Your task to perform on an android device: move a message to another label in the gmail app Image 0: 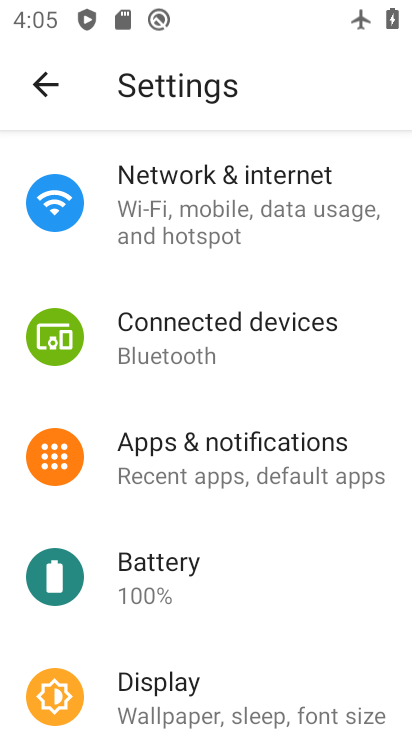
Step 0: press home button
Your task to perform on an android device: move a message to another label in the gmail app Image 1: 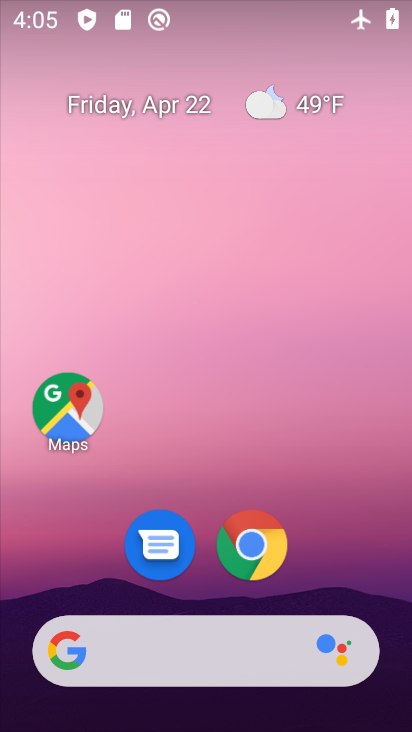
Step 1: drag from (351, 446) to (330, 154)
Your task to perform on an android device: move a message to another label in the gmail app Image 2: 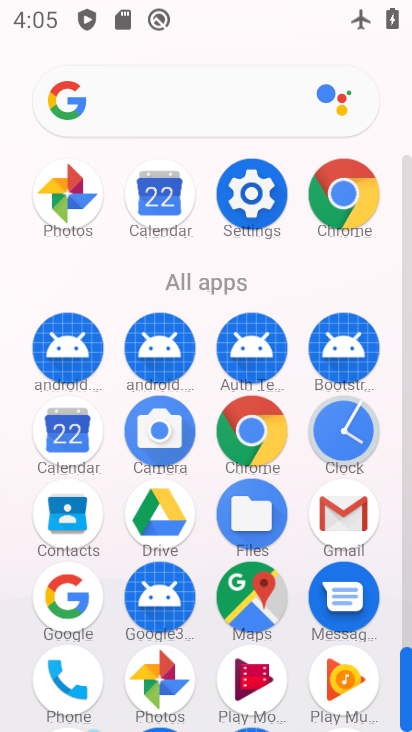
Step 2: click (338, 520)
Your task to perform on an android device: move a message to another label in the gmail app Image 3: 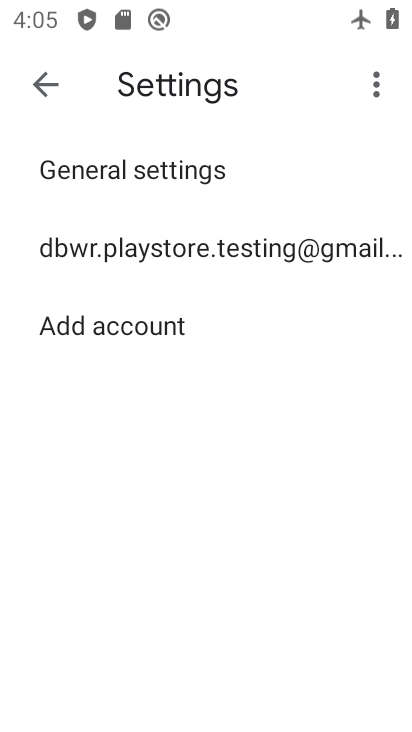
Step 3: click (136, 237)
Your task to perform on an android device: move a message to another label in the gmail app Image 4: 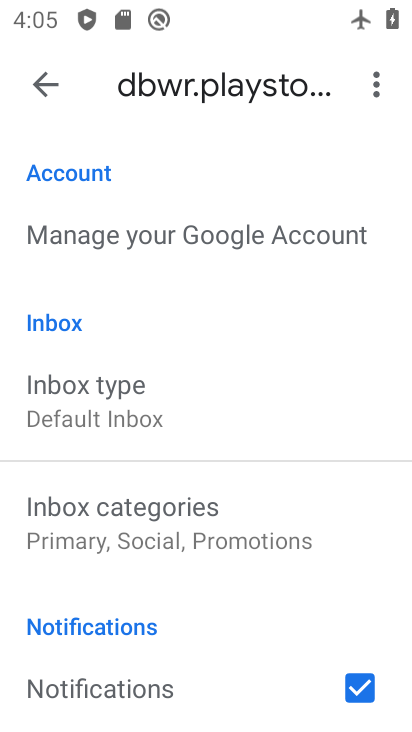
Step 4: click (34, 78)
Your task to perform on an android device: move a message to another label in the gmail app Image 5: 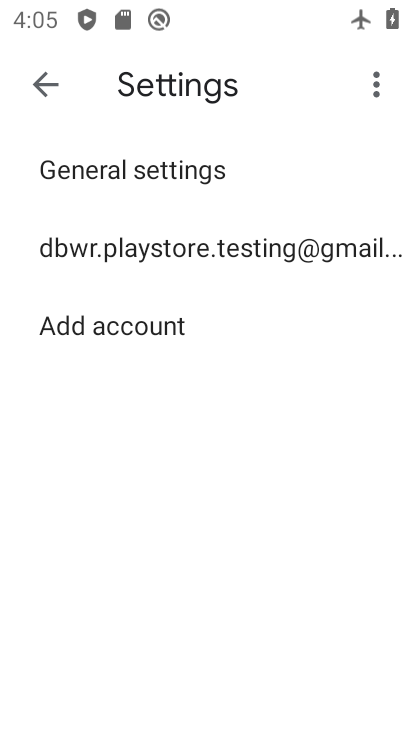
Step 5: click (34, 78)
Your task to perform on an android device: move a message to another label in the gmail app Image 6: 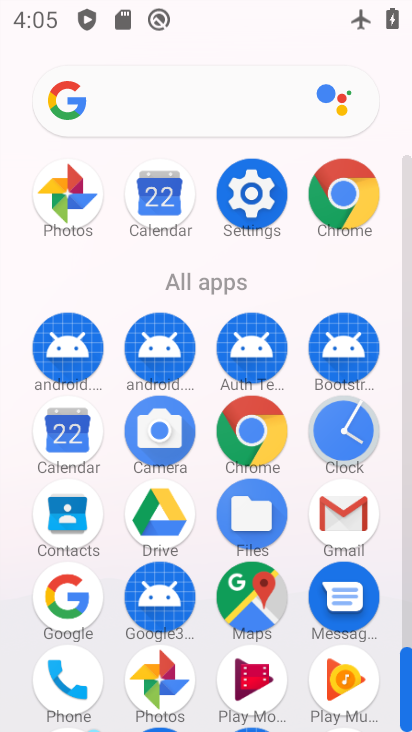
Step 6: click (364, 517)
Your task to perform on an android device: move a message to another label in the gmail app Image 7: 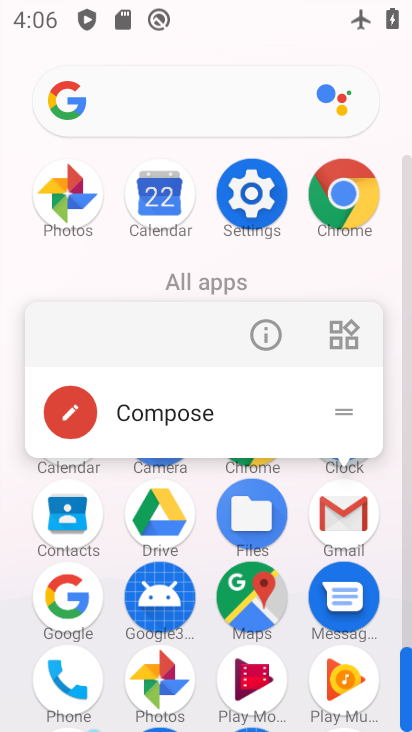
Step 7: click (364, 517)
Your task to perform on an android device: move a message to another label in the gmail app Image 8: 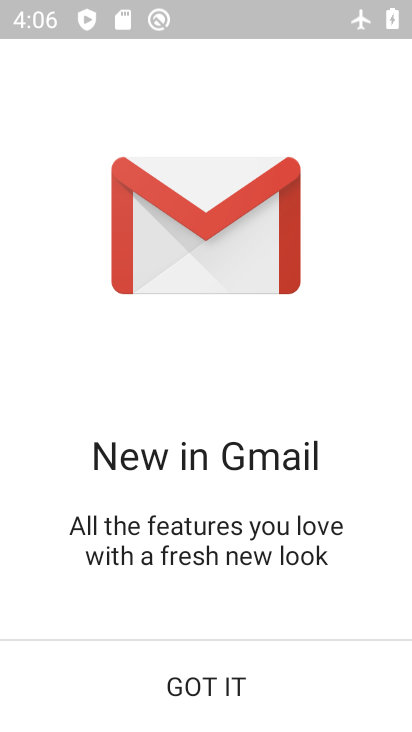
Step 8: click (204, 670)
Your task to perform on an android device: move a message to another label in the gmail app Image 9: 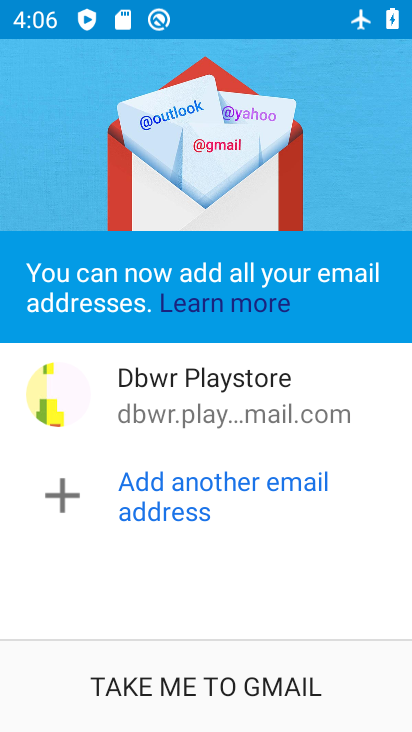
Step 9: click (200, 675)
Your task to perform on an android device: move a message to another label in the gmail app Image 10: 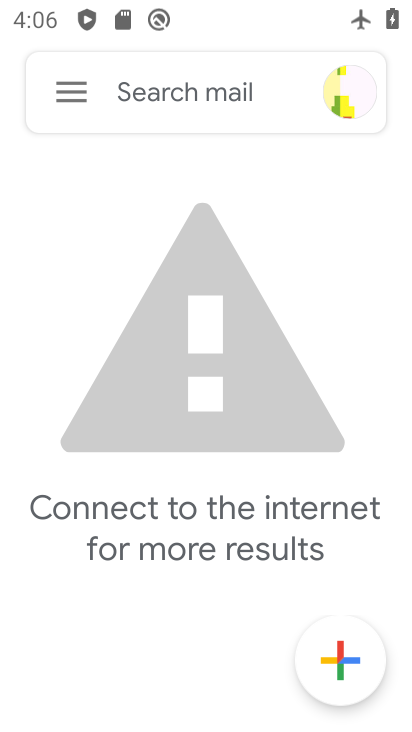
Step 10: task complete